Your task to perform on an android device: turn off priority inbox in the gmail app Image 0: 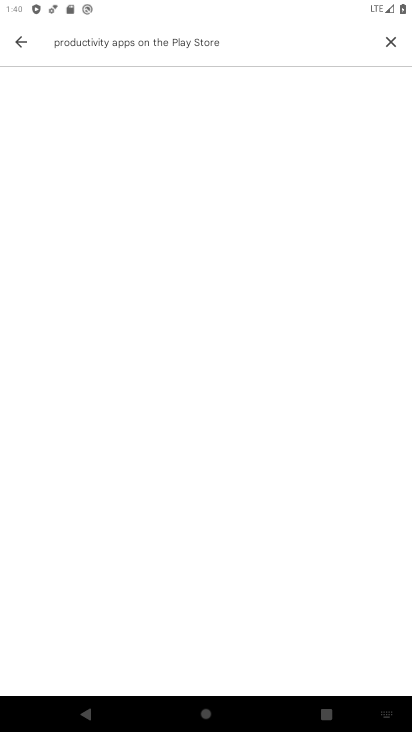
Step 0: press home button
Your task to perform on an android device: turn off priority inbox in the gmail app Image 1: 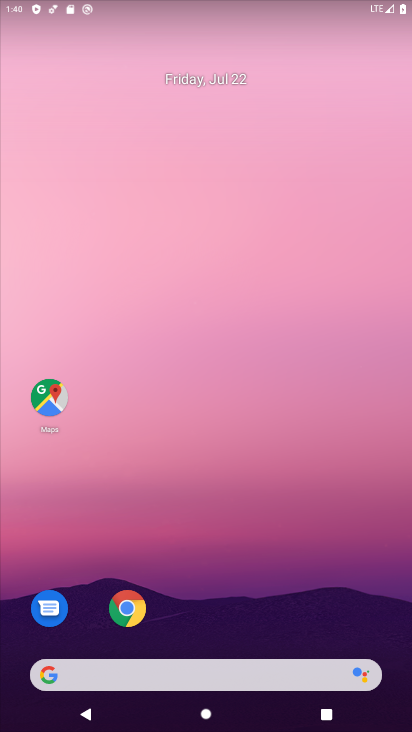
Step 1: drag from (400, 714) to (356, 213)
Your task to perform on an android device: turn off priority inbox in the gmail app Image 2: 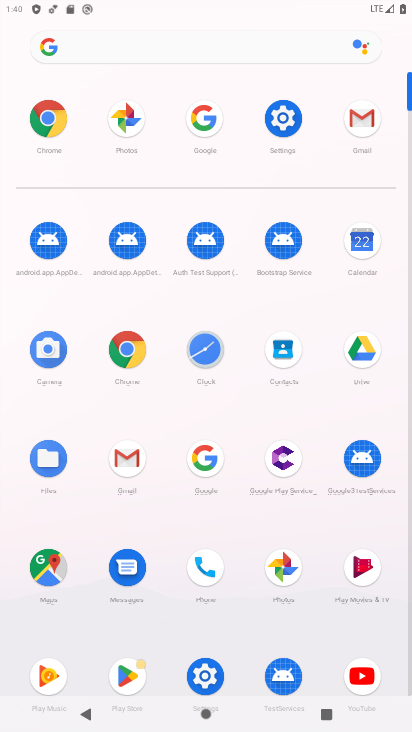
Step 2: click (128, 453)
Your task to perform on an android device: turn off priority inbox in the gmail app Image 3: 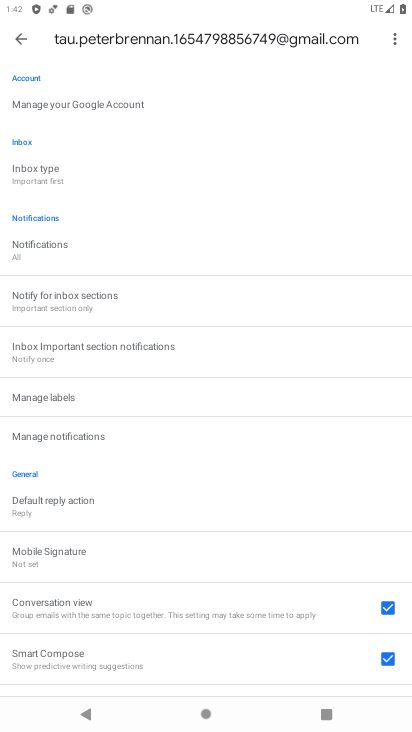
Step 3: click (21, 177)
Your task to perform on an android device: turn off priority inbox in the gmail app Image 4: 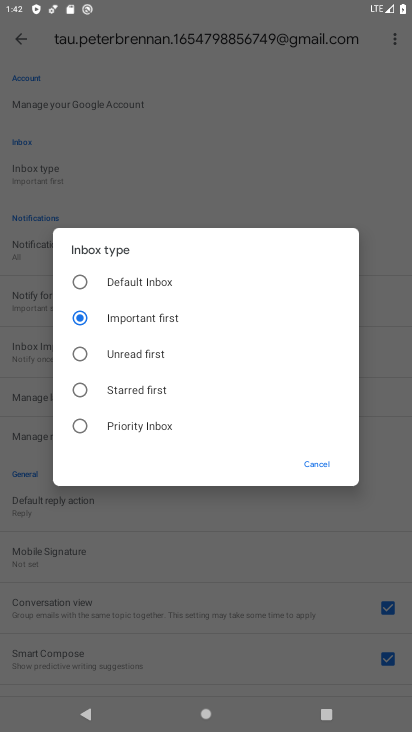
Step 4: click (121, 422)
Your task to perform on an android device: turn off priority inbox in the gmail app Image 5: 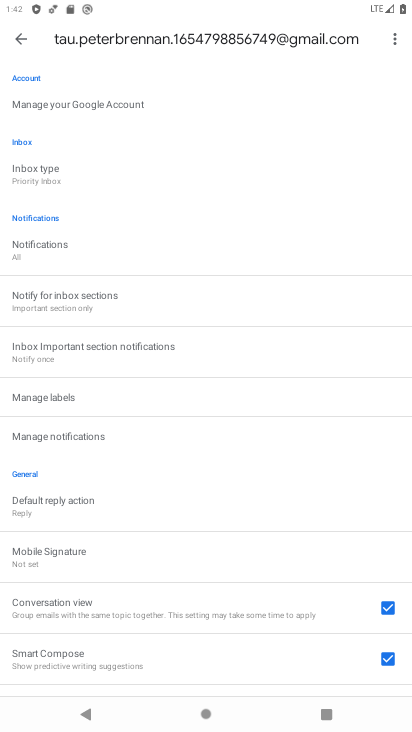
Step 5: click (40, 174)
Your task to perform on an android device: turn off priority inbox in the gmail app Image 6: 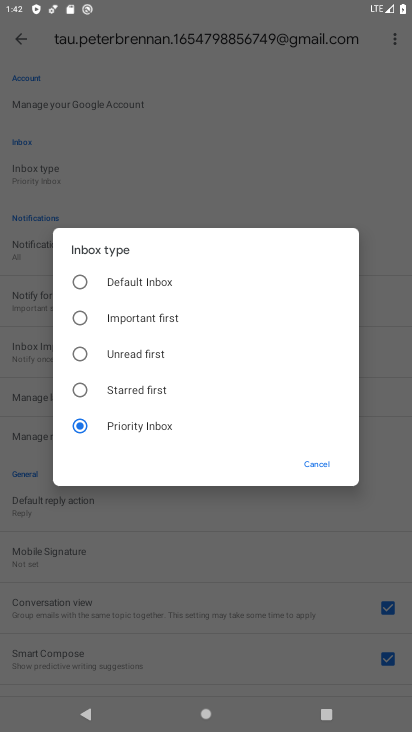
Step 6: click (120, 357)
Your task to perform on an android device: turn off priority inbox in the gmail app Image 7: 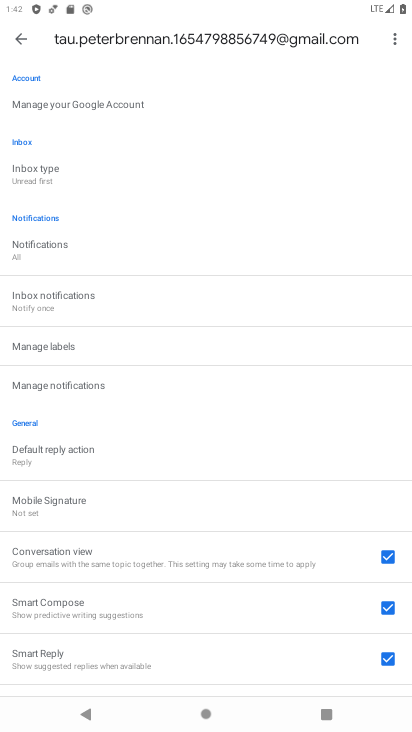
Step 7: task complete